Your task to perform on an android device: Turn off the flashlight Image 0: 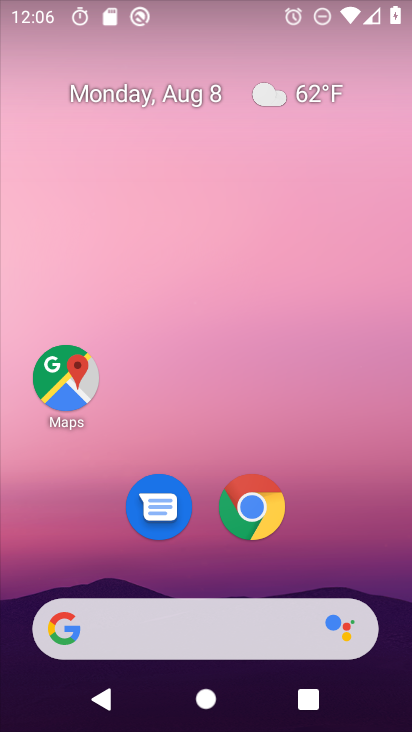
Step 0: drag from (344, 553) to (345, 2)
Your task to perform on an android device: Turn off the flashlight Image 1: 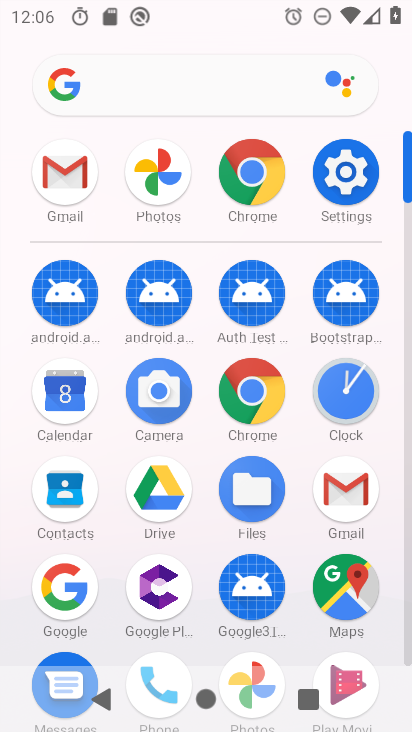
Step 1: click (349, 168)
Your task to perform on an android device: Turn off the flashlight Image 2: 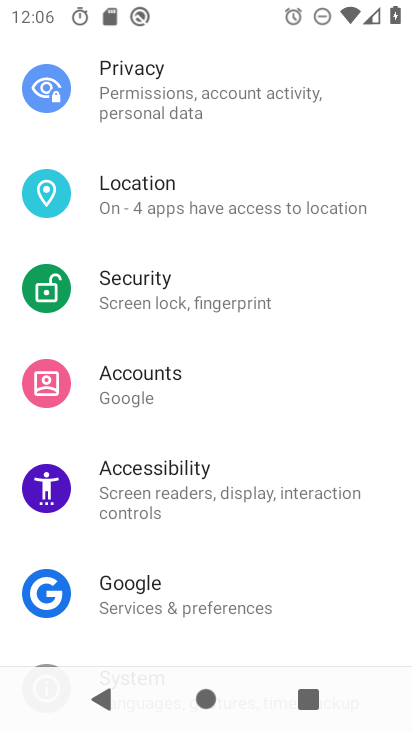
Step 2: drag from (318, 135) to (286, 447)
Your task to perform on an android device: Turn off the flashlight Image 3: 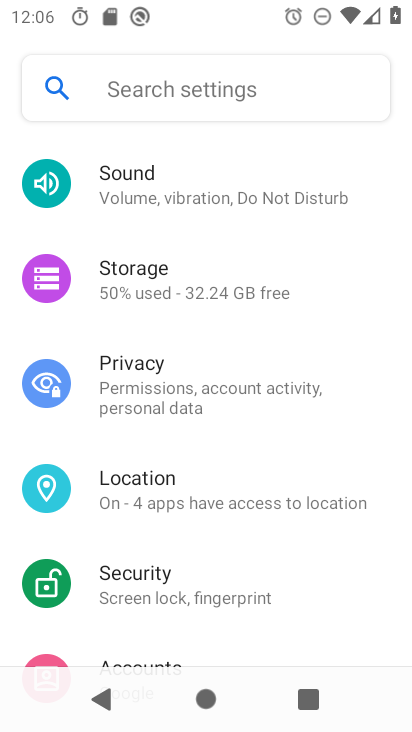
Step 3: drag from (286, 142) to (233, 446)
Your task to perform on an android device: Turn off the flashlight Image 4: 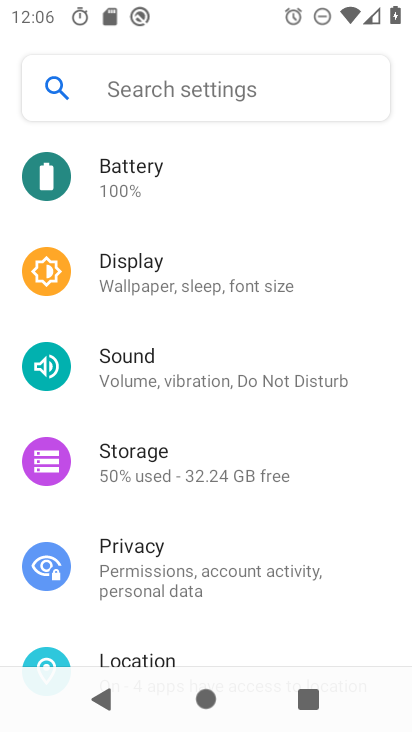
Step 4: click (163, 279)
Your task to perform on an android device: Turn off the flashlight Image 5: 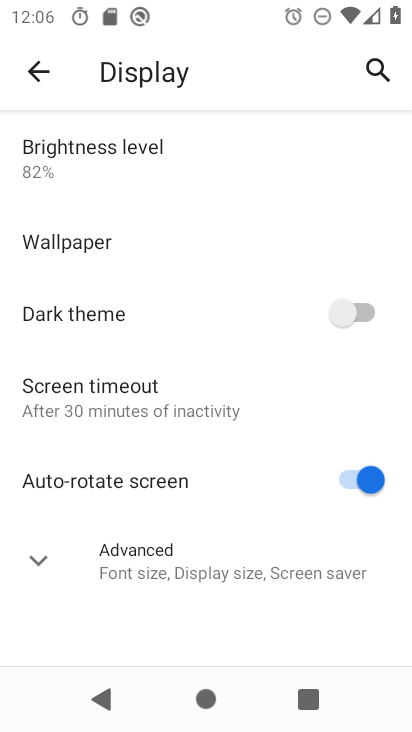
Step 5: click (160, 388)
Your task to perform on an android device: Turn off the flashlight Image 6: 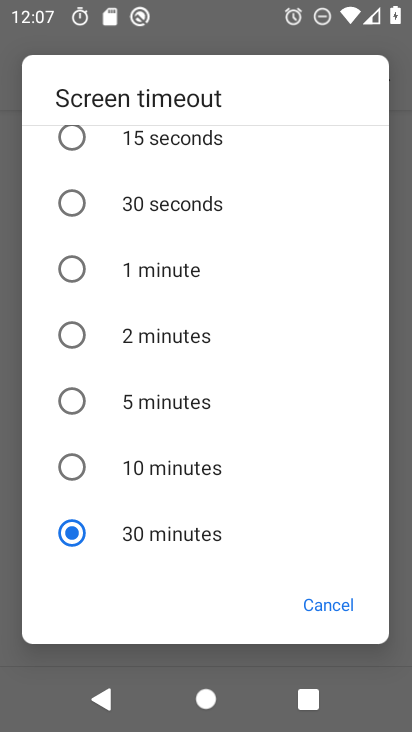
Step 6: task complete